Your task to perform on an android device: Open eBay Image 0: 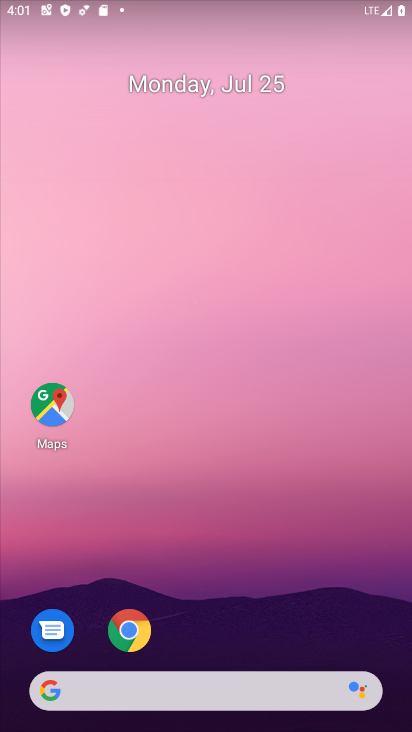
Step 0: click (144, 628)
Your task to perform on an android device: Open eBay Image 1: 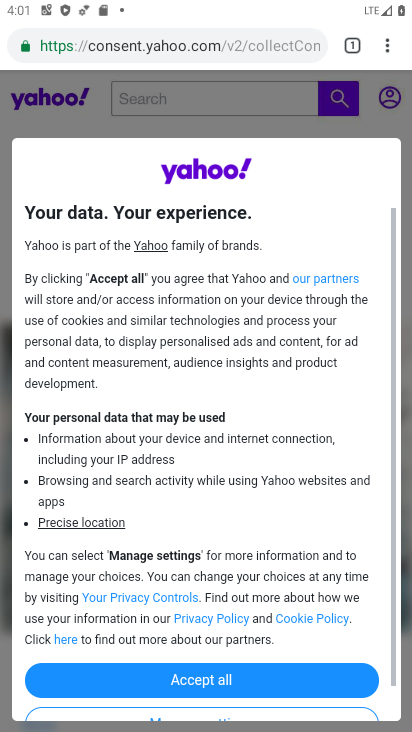
Step 1: click (176, 47)
Your task to perform on an android device: Open eBay Image 2: 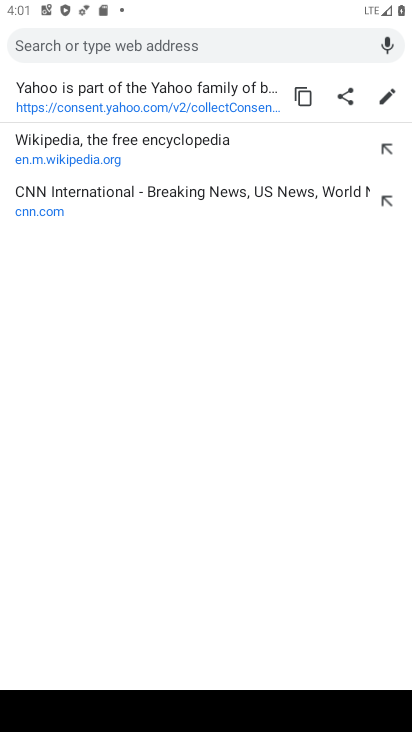
Step 2: type "eBay"
Your task to perform on an android device: Open eBay Image 3: 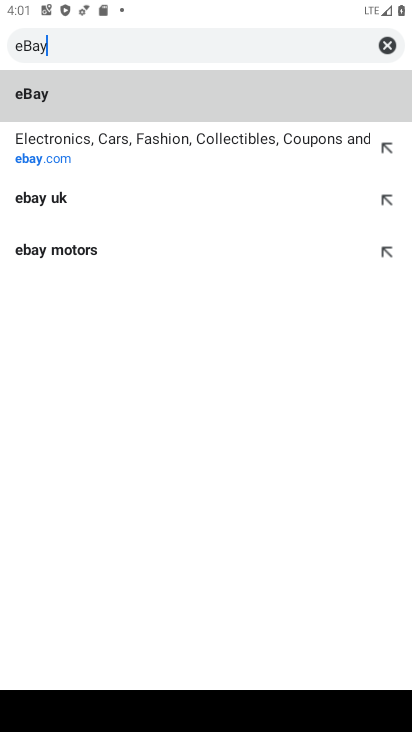
Step 3: click (101, 149)
Your task to perform on an android device: Open eBay Image 4: 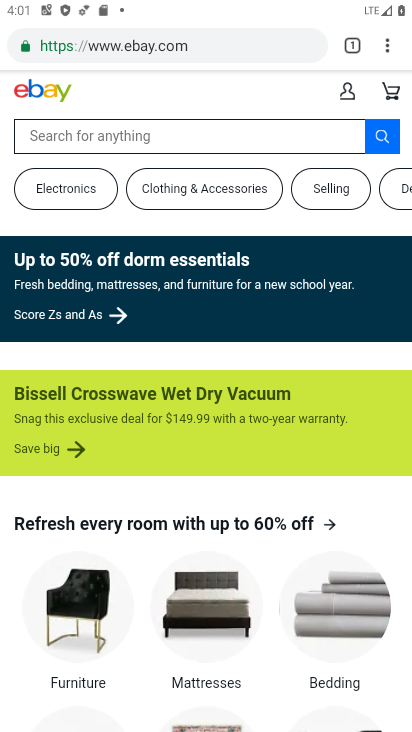
Step 4: task complete